Your task to perform on an android device: Open the calendar and show me this week's events? Image 0: 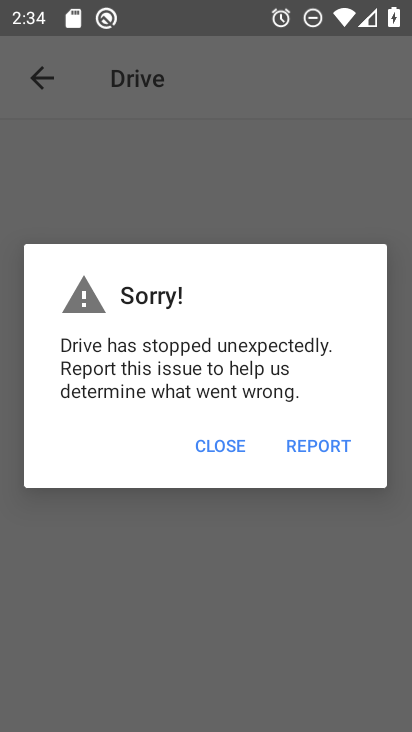
Step 0: press home button
Your task to perform on an android device: Open the calendar and show me this week's events? Image 1: 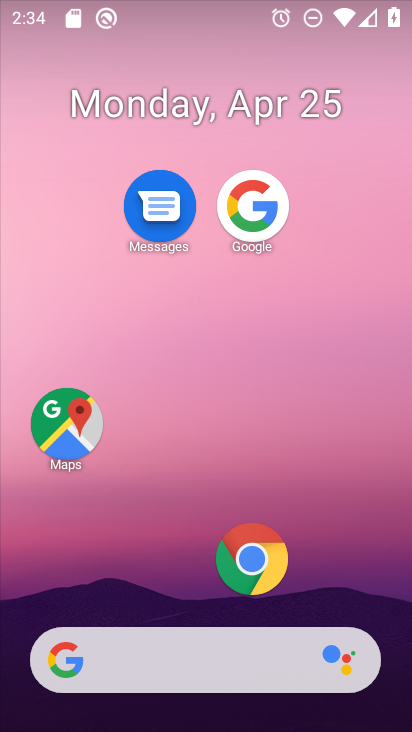
Step 1: drag from (168, 428) to (170, 74)
Your task to perform on an android device: Open the calendar and show me this week's events? Image 2: 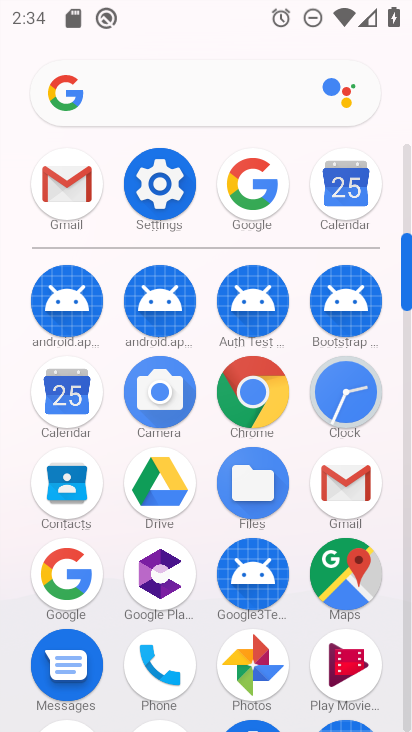
Step 2: click (61, 394)
Your task to perform on an android device: Open the calendar and show me this week's events? Image 3: 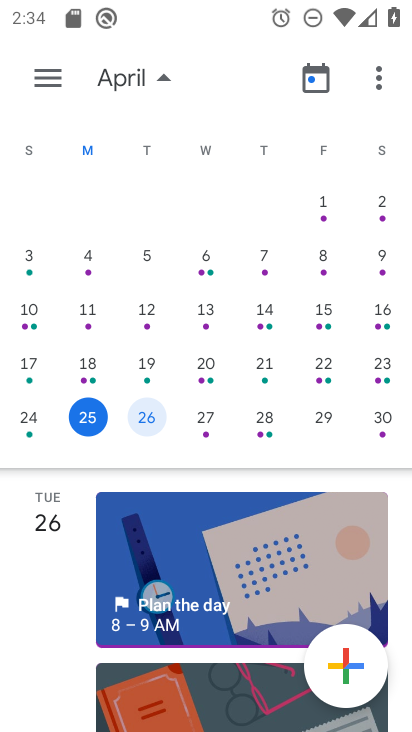
Step 3: click (258, 416)
Your task to perform on an android device: Open the calendar and show me this week's events? Image 4: 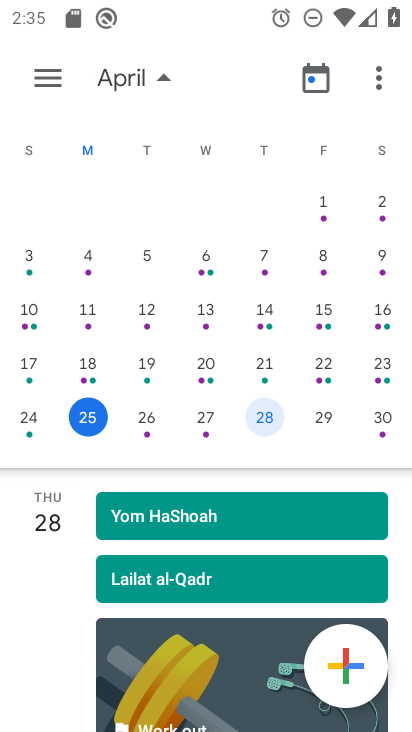
Step 4: task complete